Your task to perform on an android device: Open Reddit.com Image 0: 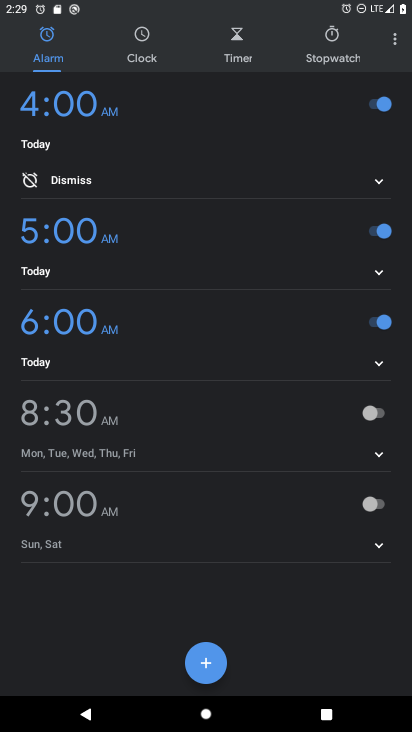
Step 0: press home button
Your task to perform on an android device: Open Reddit.com Image 1: 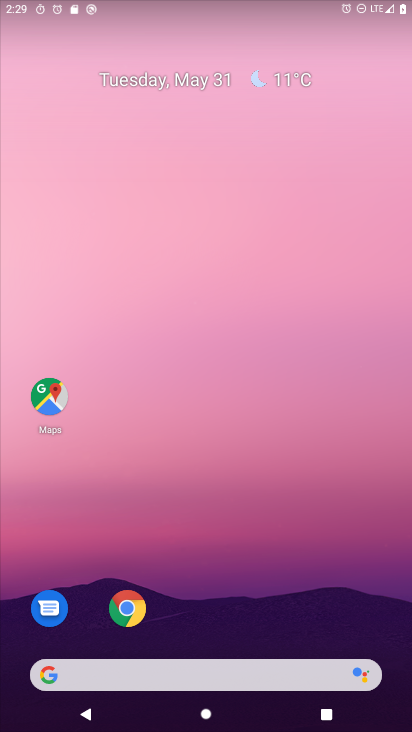
Step 1: click (125, 612)
Your task to perform on an android device: Open Reddit.com Image 2: 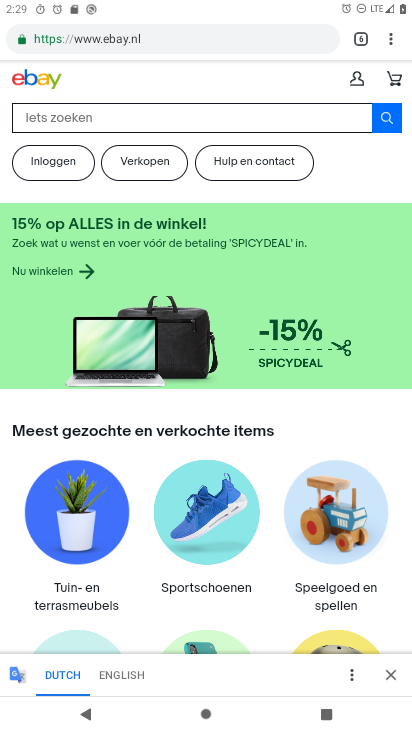
Step 2: click (78, 36)
Your task to perform on an android device: Open Reddit.com Image 3: 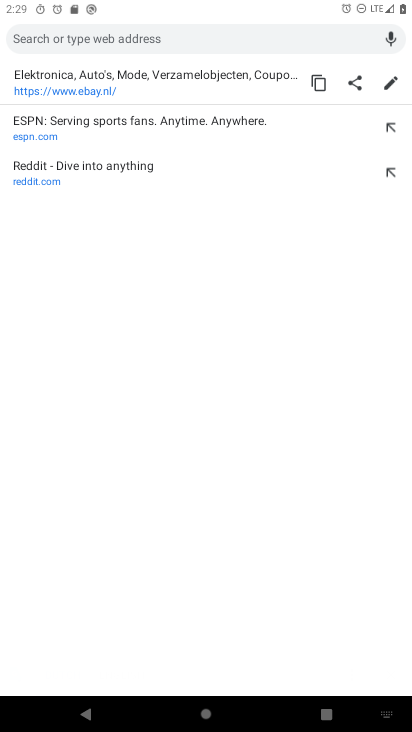
Step 3: type "reddit.com"
Your task to perform on an android device: Open Reddit.com Image 4: 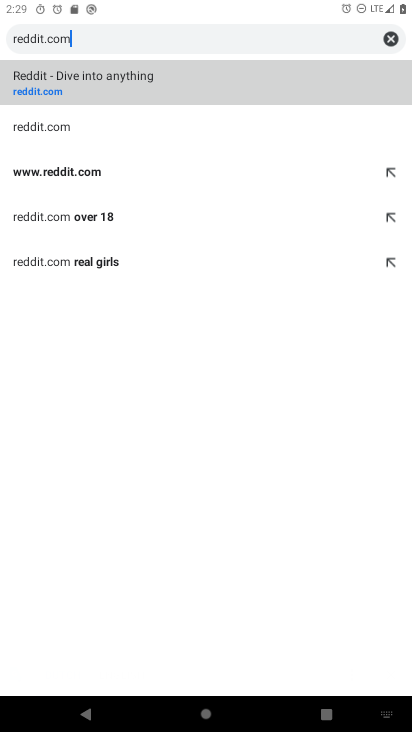
Step 4: click (51, 89)
Your task to perform on an android device: Open Reddit.com Image 5: 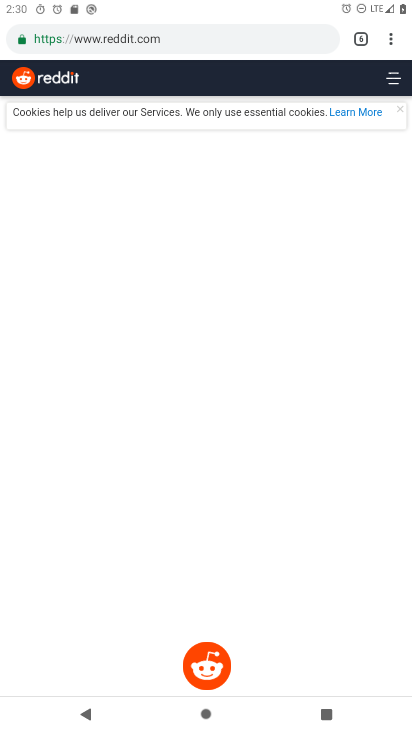
Step 5: task complete